Your task to perform on an android device: open sync settings in chrome Image 0: 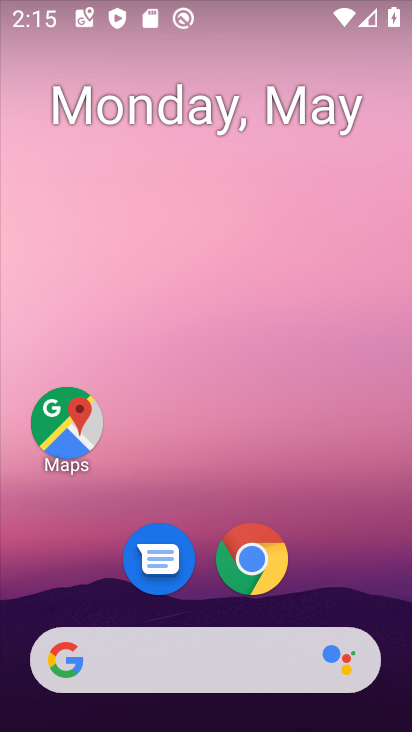
Step 0: click (273, 564)
Your task to perform on an android device: open sync settings in chrome Image 1: 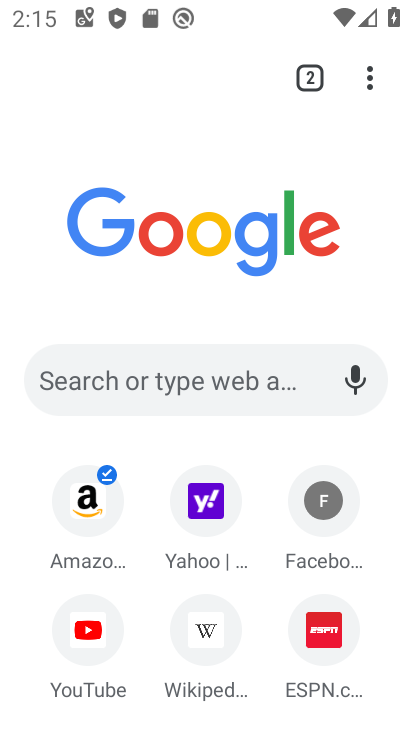
Step 1: click (366, 69)
Your task to perform on an android device: open sync settings in chrome Image 2: 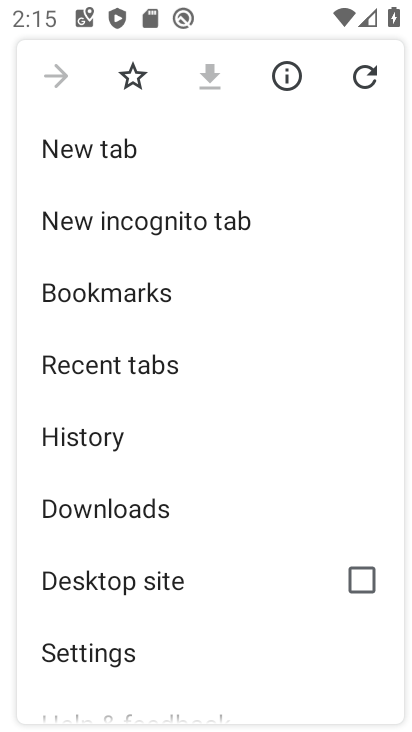
Step 2: click (171, 651)
Your task to perform on an android device: open sync settings in chrome Image 3: 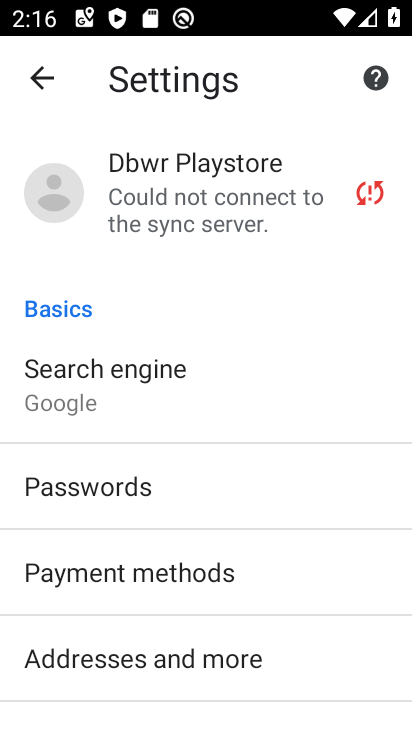
Step 3: click (302, 209)
Your task to perform on an android device: open sync settings in chrome Image 4: 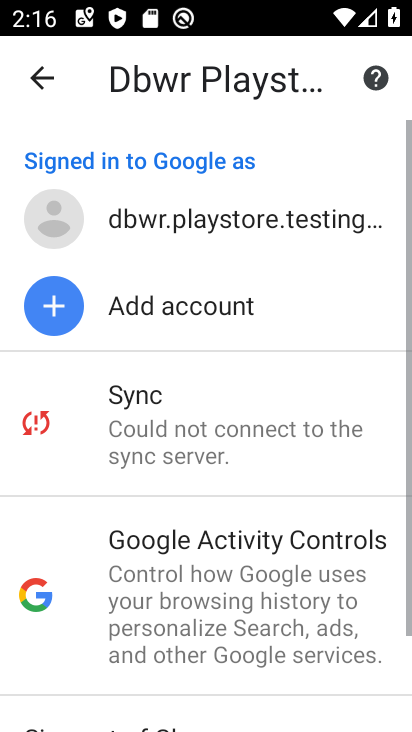
Step 4: task complete